Your task to perform on an android device: clear history in the chrome app Image 0: 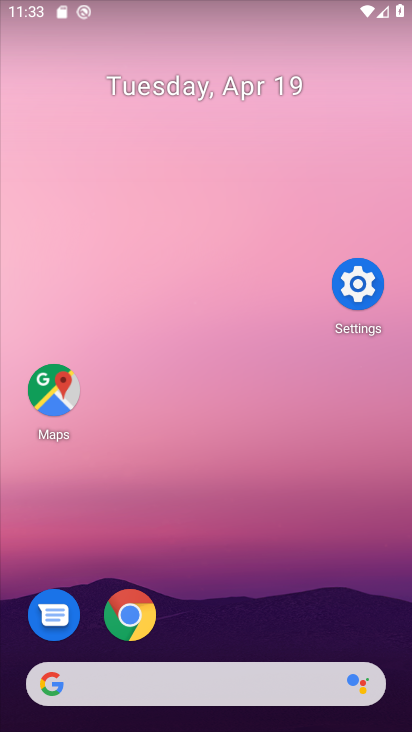
Step 0: drag from (201, 577) to (252, 154)
Your task to perform on an android device: clear history in the chrome app Image 1: 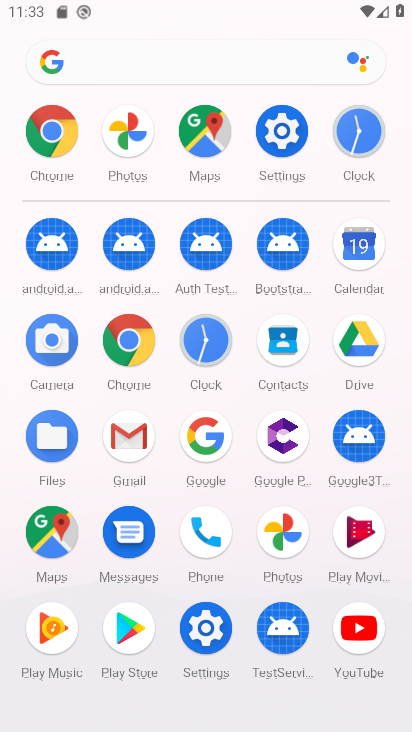
Step 1: click (127, 333)
Your task to perform on an android device: clear history in the chrome app Image 2: 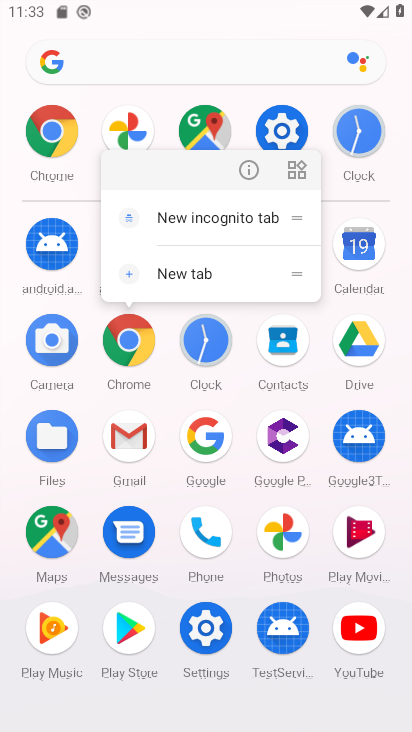
Step 2: click (245, 172)
Your task to perform on an android device: clear history in the chrome app Image 3: 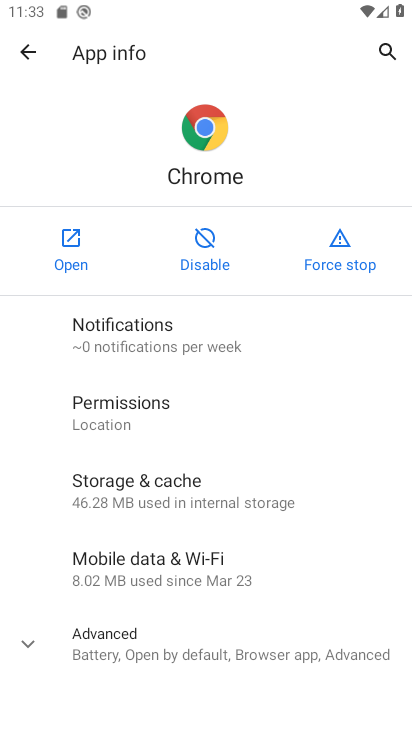
Step 3: click (65, 249)
Your task to perform on an android device: clear history in the chrome app Image 4: 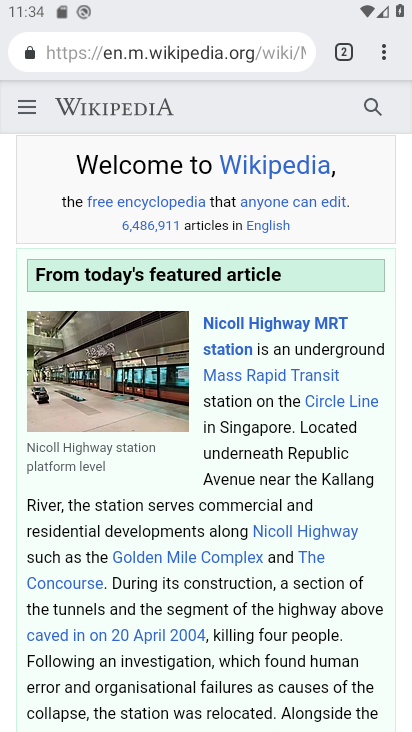
Step 4: drag from (179, 559) to (282, 211)
Your task to perform on an android device: clear history in the chrome app Image 5: 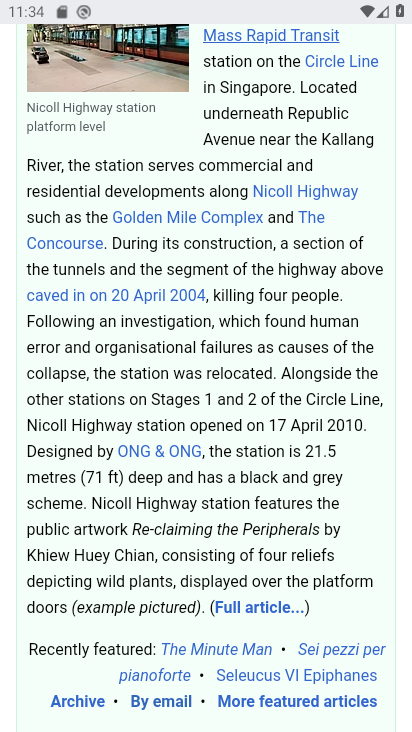
Step 5: press home button
Your task to perform on an android device: clear history in the chrome app Image 6: 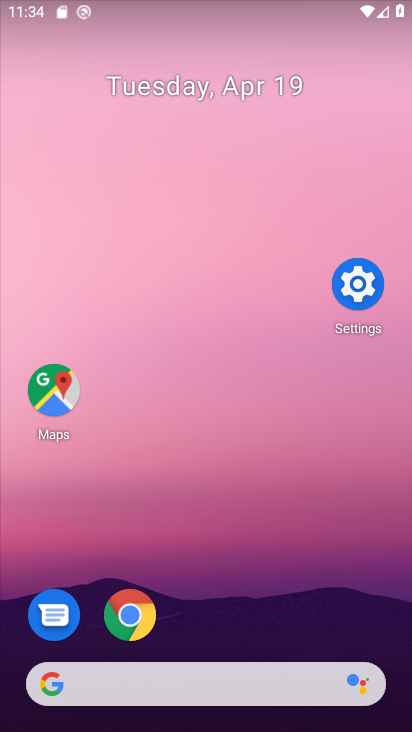
Step 6: click (132, 607)
Your task to perform on an android device: clear history in the chrome app Image 7: 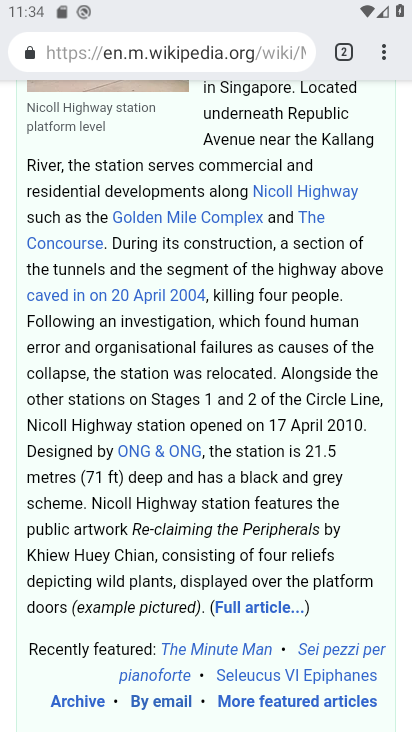
Step 7: drag from (272, 341) to (322, 686)
Your task to perform on an android device: clear history in the chrome app Image 8: 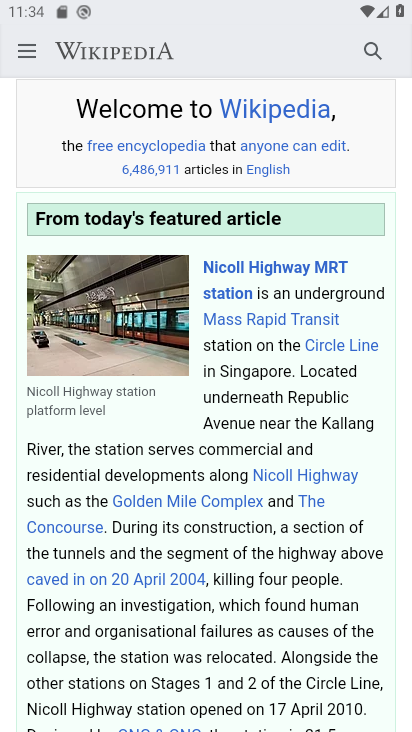
Step 8: drag from (278, 451) to (367, 183)
Your task to perform on an android device: clear history in the chrome app Image 9: 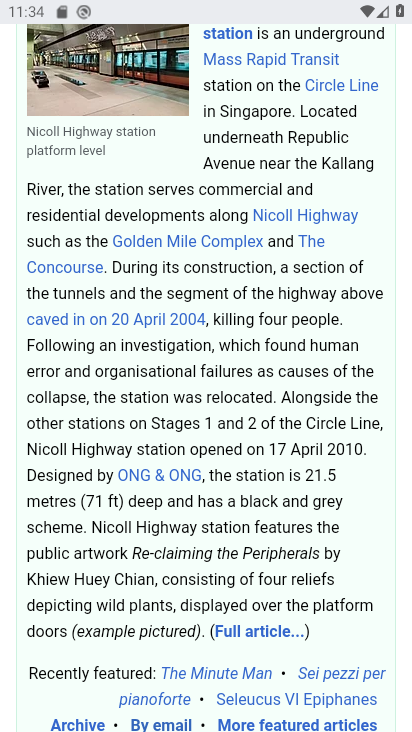
Step 9: drag from (382, 44) to (382, 114)
Your task to perform on an android device: clear history in the chrome app Image 10: 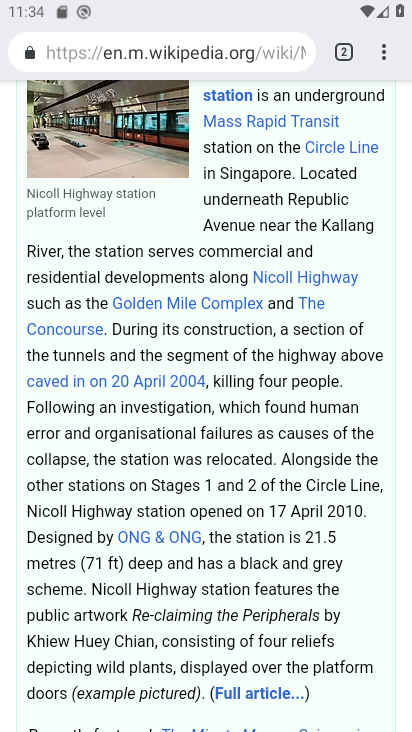
Step 10: drag from (384, 55) to (238, 351)
Your task to perform on an android device: clear history in the chrome app Image 11: 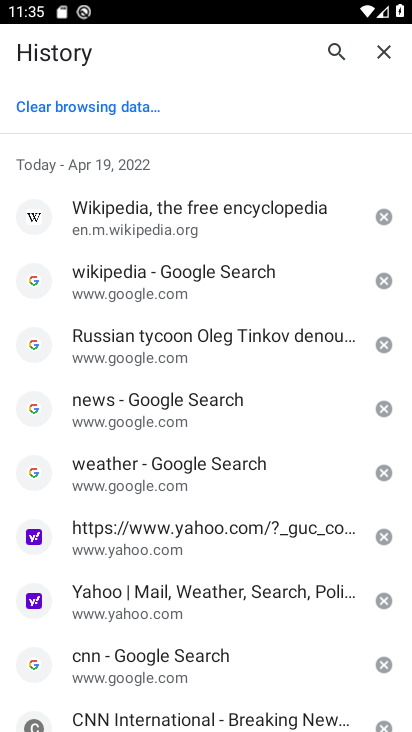
Step 11: drag from (190, 565) to (281, 278)
Your task to perform on an android device: clear history in the chrome app Image 12: 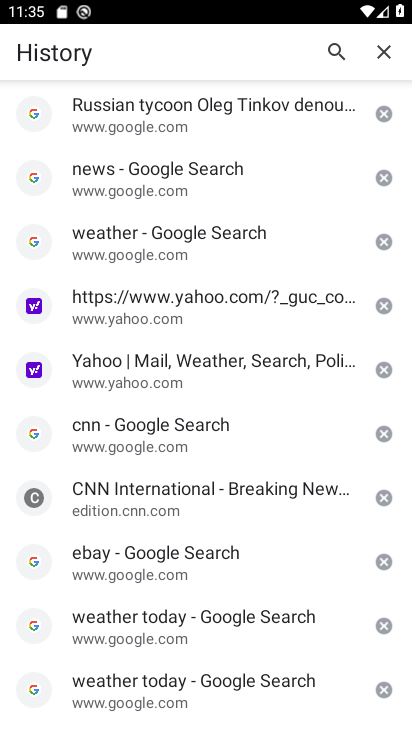
Step 12: drag from (285, 249) to (286, 561)
Your task to perform on an android device: clear history in the chrome app Image 13: 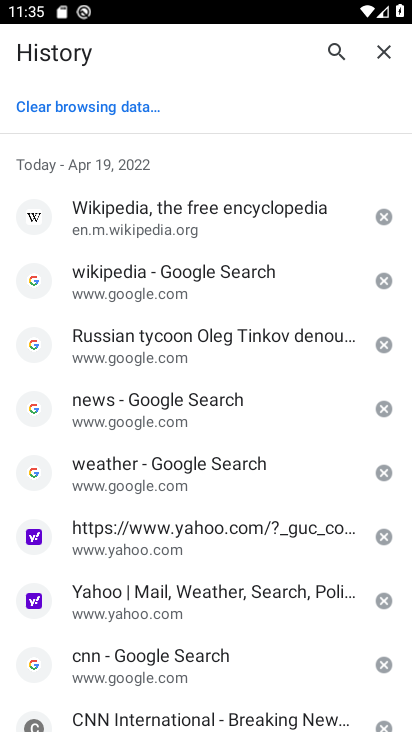
Step 13: click (55, 115)
Your task to perform on an android device: clear history in the chrome app Image 14: 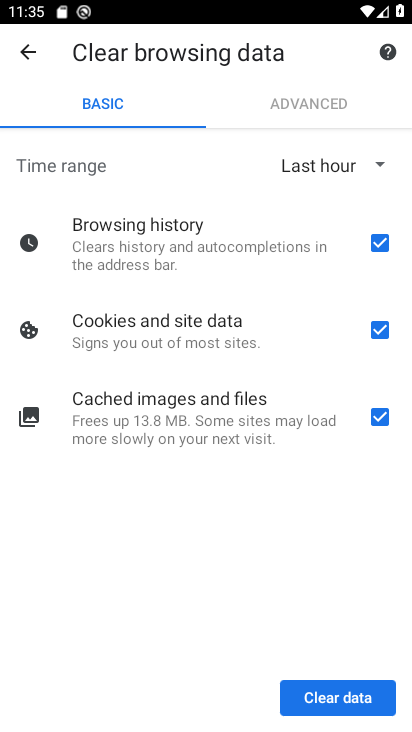
Step 14: click (334, 696)
Your task to perform on an android device: clear history in the chrome app Image 15: 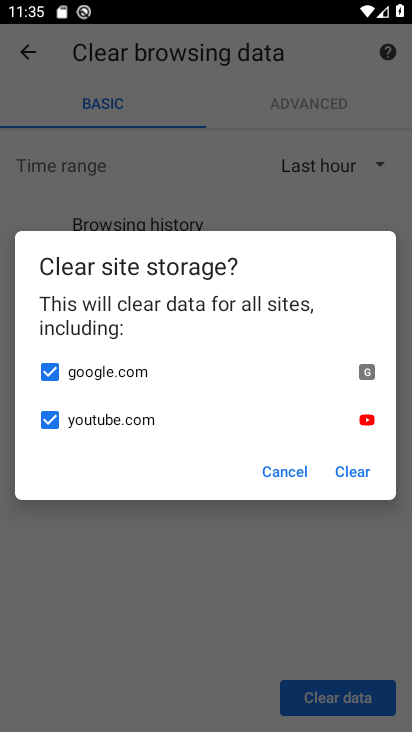
Step 15: click (355, 469)
Your task to perform on an android device: clear history in the chrome app Image 16: 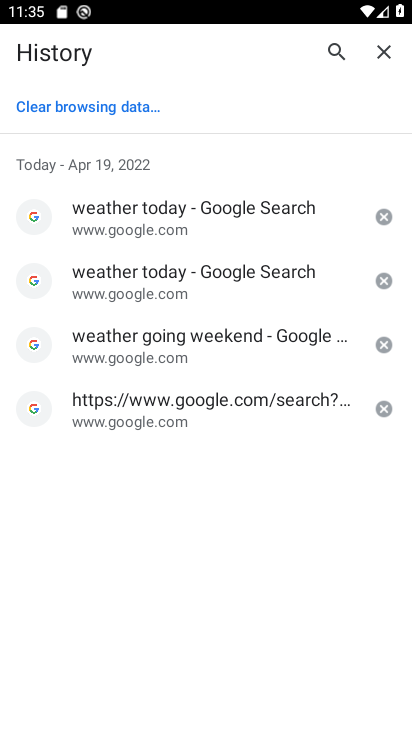
Step 16: task complete